Your task to perform on an android device: Open Chrome and go to the settings page Image 0: 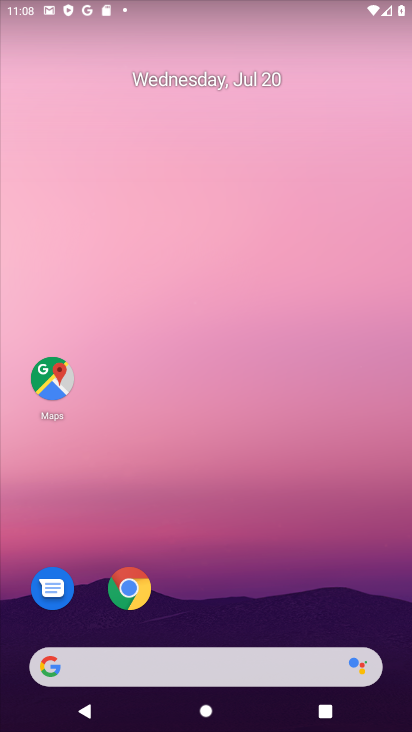
Step 0: drag from (177, 632) to (268, 85)
Your task to perform on an android device: Open Chrome and go to the settings page Image 1: 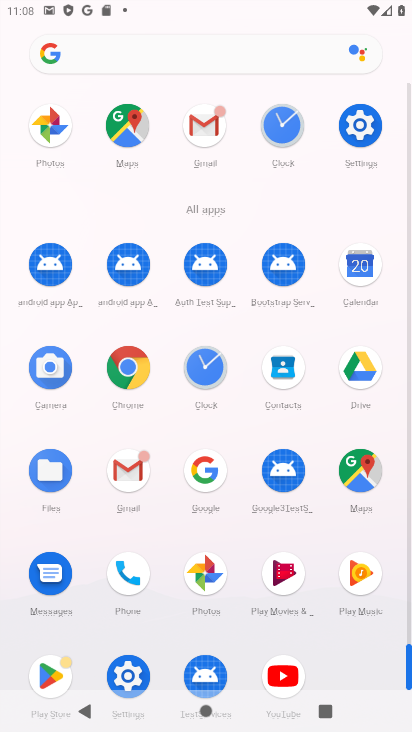
Step 1: click (357, 127)
Your task to perform on an android device: Open Chrome and go to the settings page Image 2: 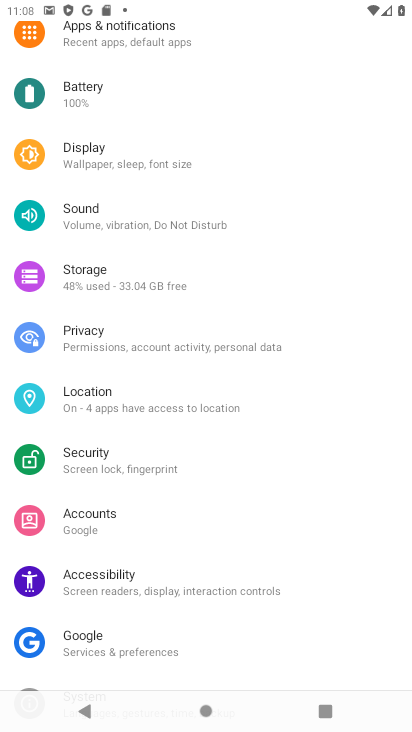
Step 2: press home button
Your task to perform on an android device: Open Chrome and go to the settings page Image 3: 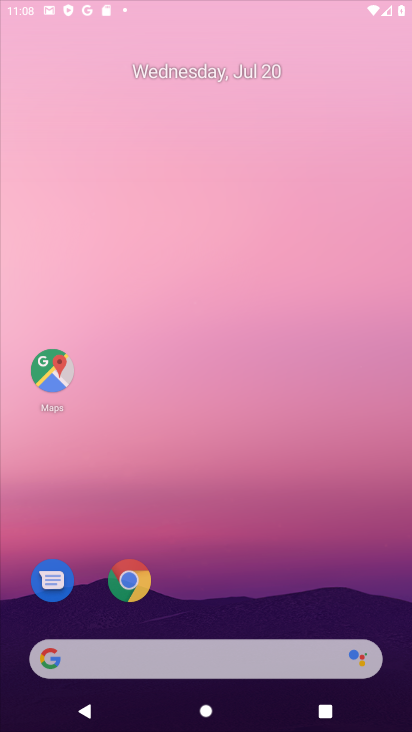
Step 3: drag from (205, 608) to (253, 279)
Your task to perform on an android device: Open Chrome and go to the settings page Image 4: 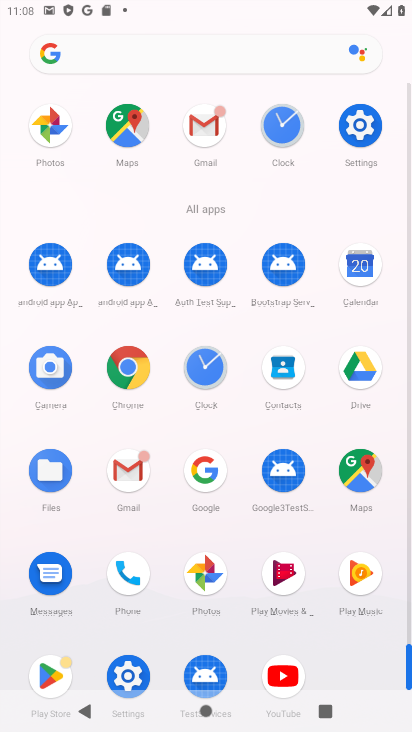
Step 4: click (116, 371)
Your task to perform on an android device: Open Chrome and go to the settings page Image 5: 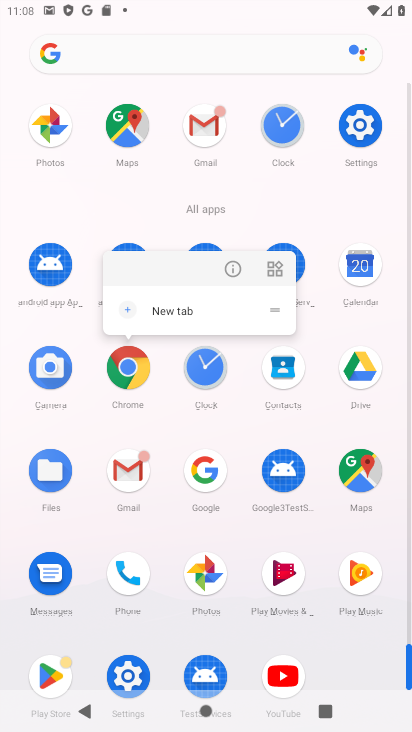
Step 5: click (235, 273)
Your task to perform on an android device: Open Chrome and go to the settings page Image 6: 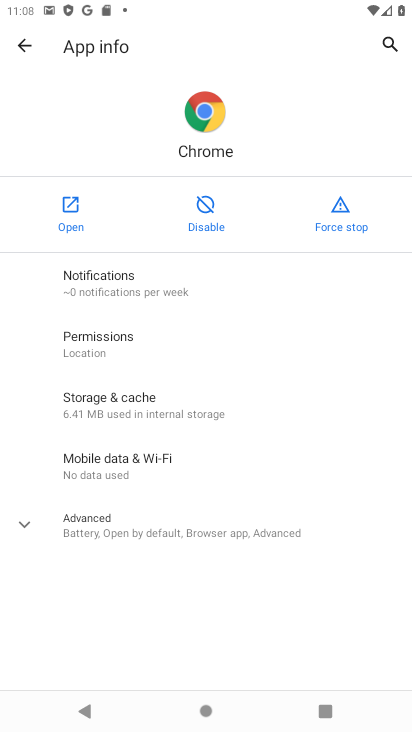
Step 6: click (58, 230)
Your task to perform on an android device: Open Chrome and go to the settings page Image 7: 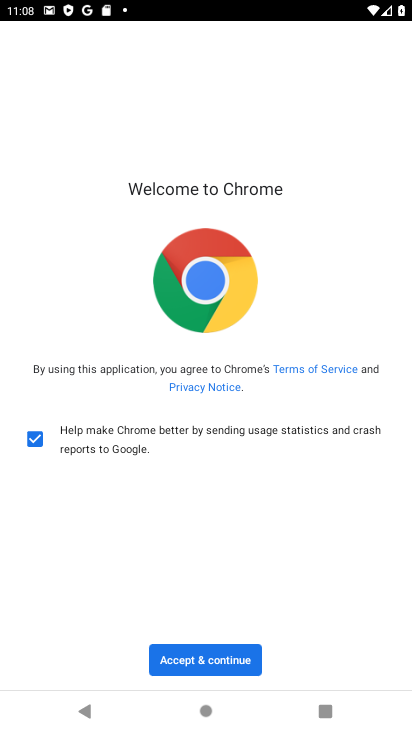
Step 7: click (192, 652)
Your task to perform on an android device: Open Chrome and go to the settings page Image 8: 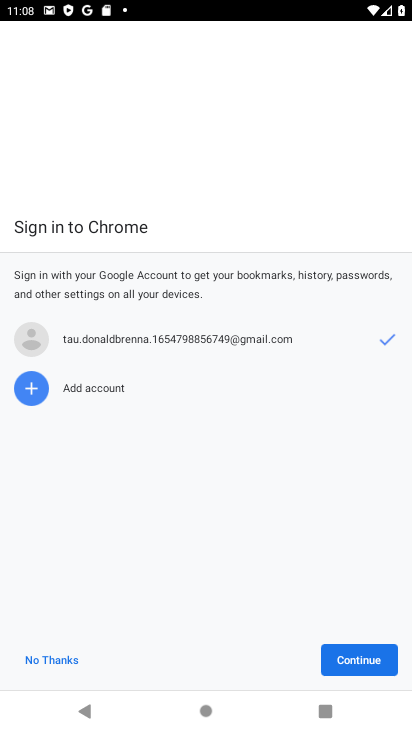
Step 8: click (362, 662)
Your task to perform on an android device: Open Chrome and go to the settings page Image 9: 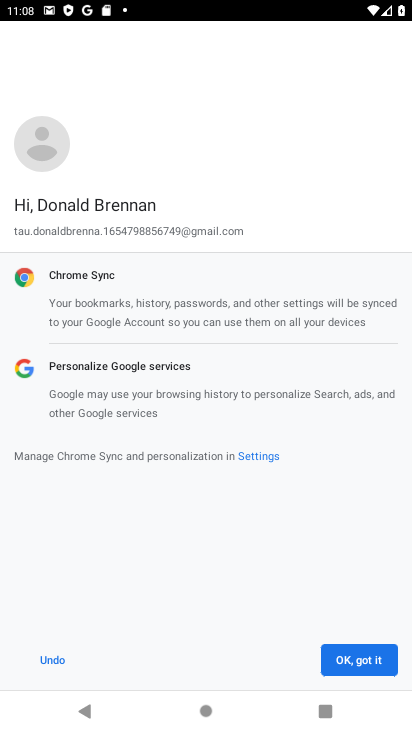
Step 9: click (377, 657)
Your task to perform on an android device: Open Chrome and go to the settings page Image 10: 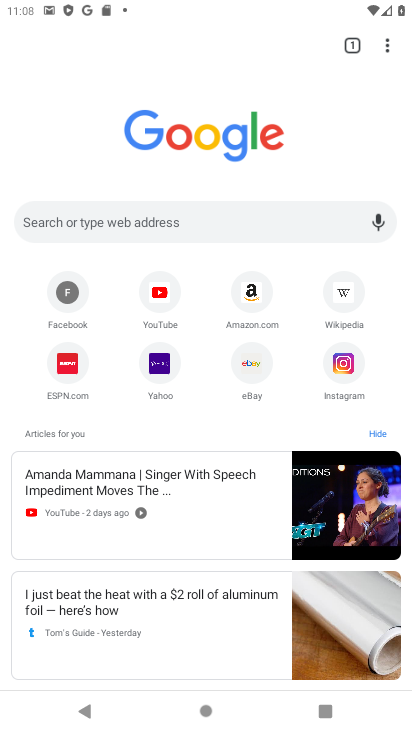
Step 10: task complete